Your task to perform on an android device: turn off airplane mode Image 0: 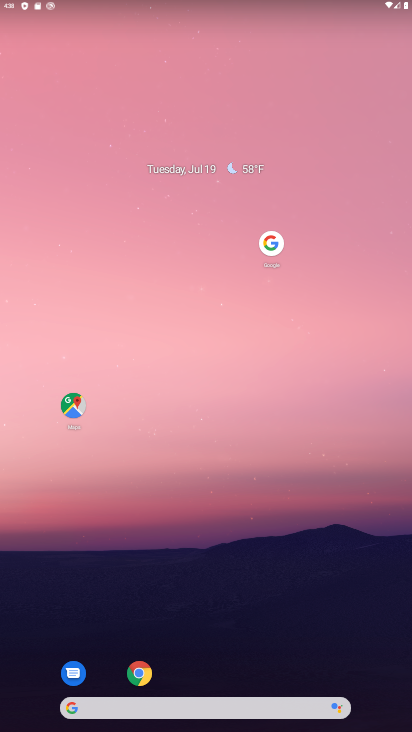
Step 0: press home button
Your task to perform on an android device: turn off airplane mode Image 1: 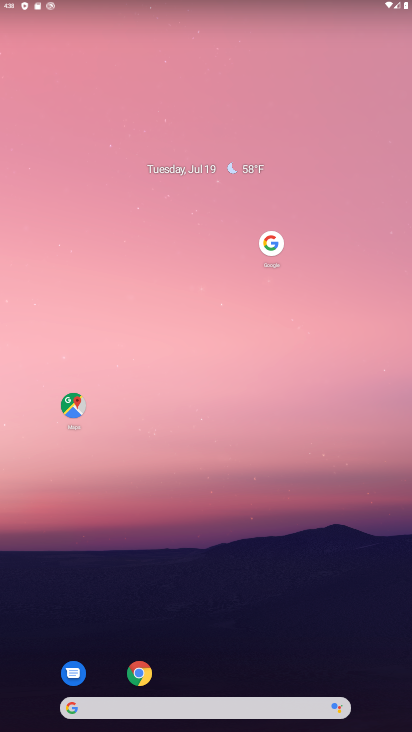
Step 1: task complete